Your task to perform on an android device: Show the shopping cart on costco.com. Add "razer nari" to the cart on costco.com, then select checkout. Image 0: 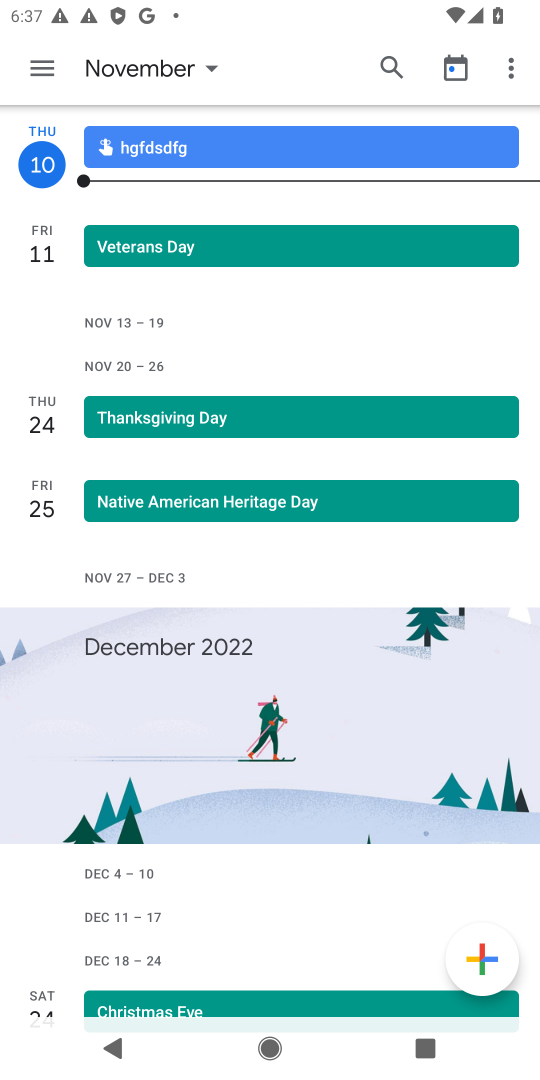
Step 0: press home button
Your task to perform on an android device: Show the shopping cart on costco.com. Add "razer nari" to the cart on costco.com, then select checkout. Image 1: 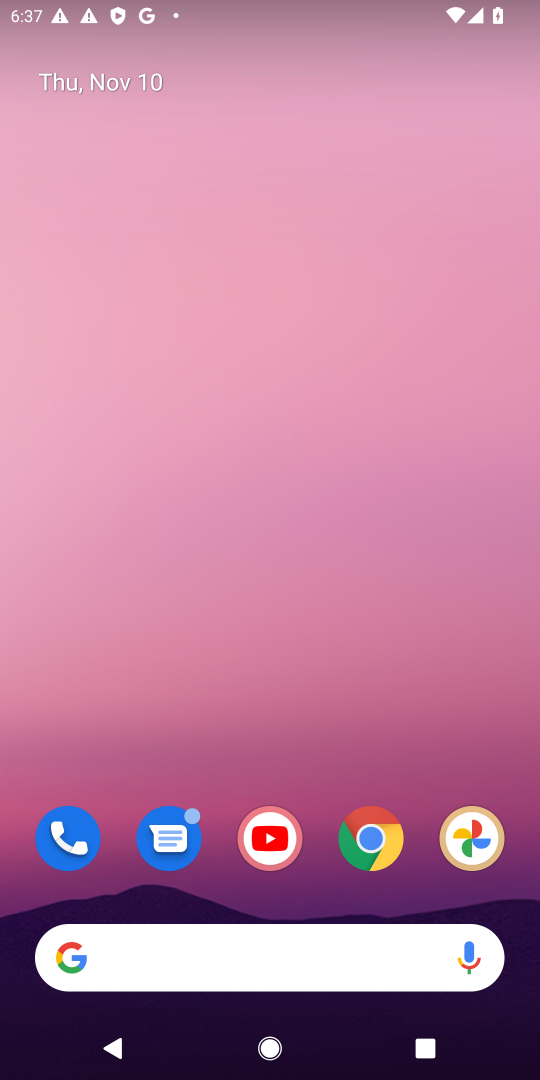
Step 1: drag from (319, 917) to (299, 50)
Your task to perform on an android device: Show the shopping cart on costco.com. Add "razer nari" to the cart on costco.com, then select checkout. Image 2: 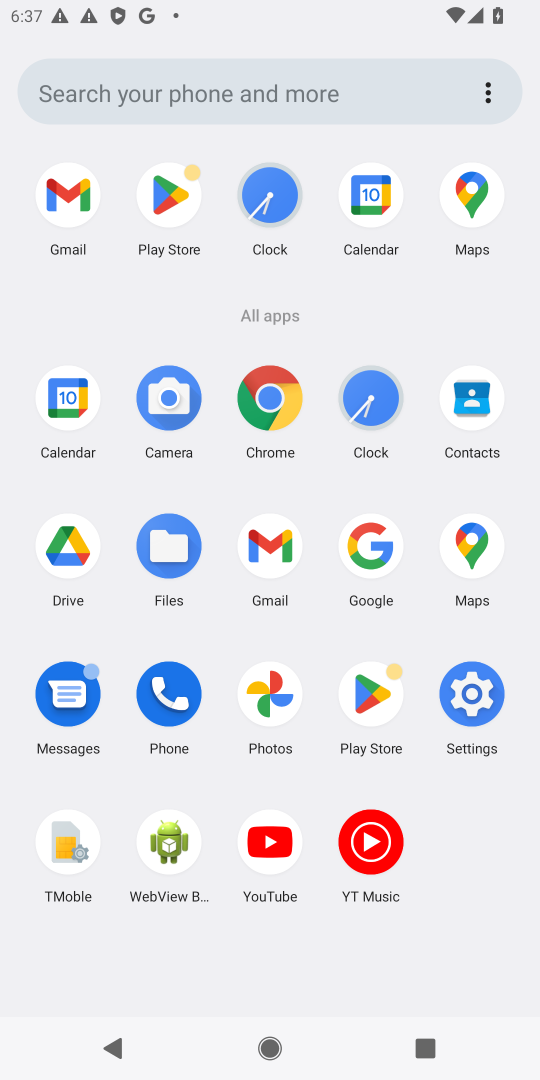
Step 2: click (266, 402)
Your task to perform on an android device: Show the shopping cart on costco.com. Add "razer nari" to the cart on costco.com, then select checkout. Image 3: 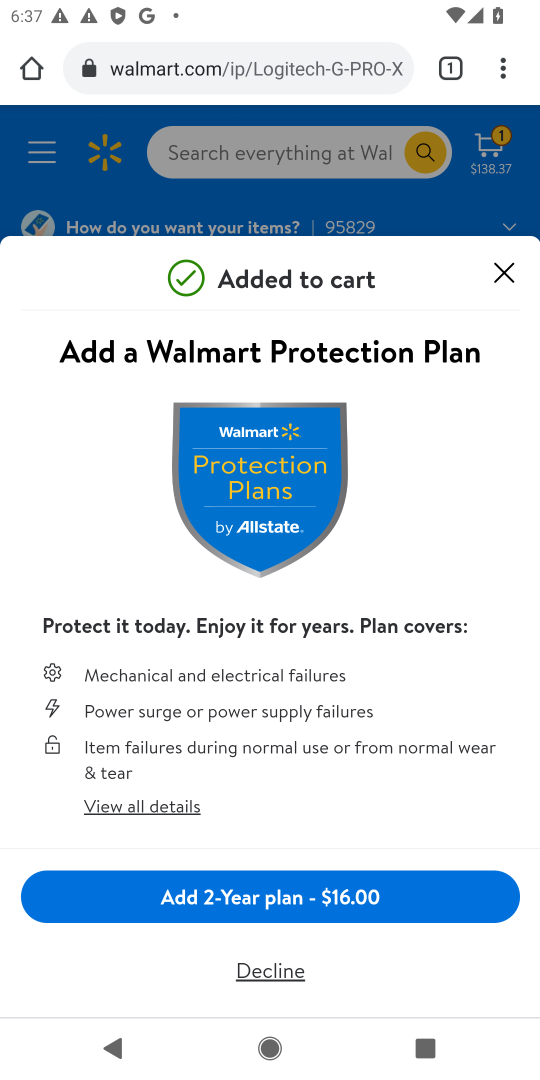
Step 3: click (311, 78)
Your task to perform on an android device: Show the shopping cart on costco.com. Add "razer nari" to the cart on costco.com, then select checkout. Image 4: 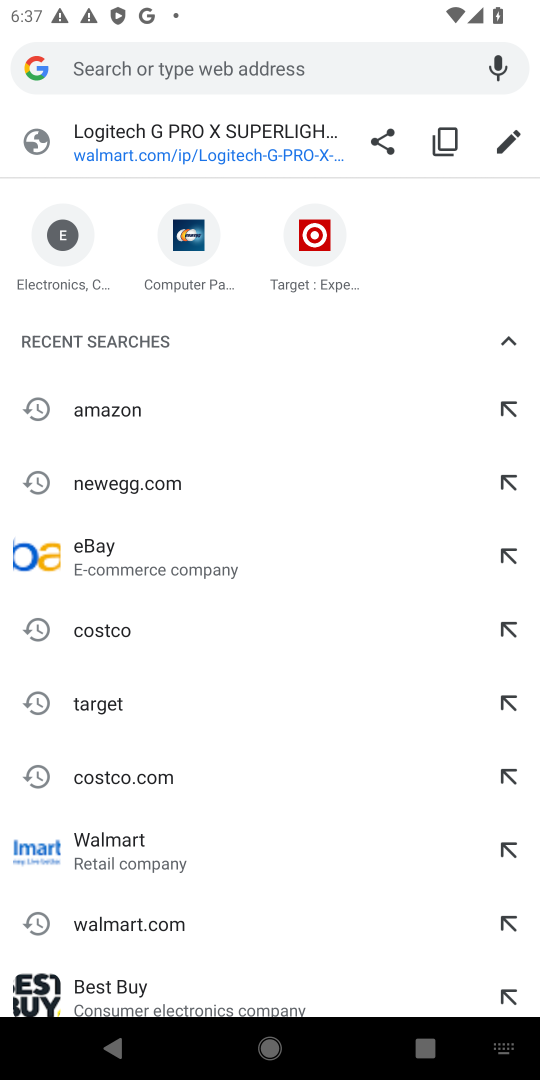
Step 4: type "costco.com"
Your task to perform on an android device: Show the shopping cart on costco.com. Add "razer nari" to the cart on costco.com, then select checkout. Image 5: 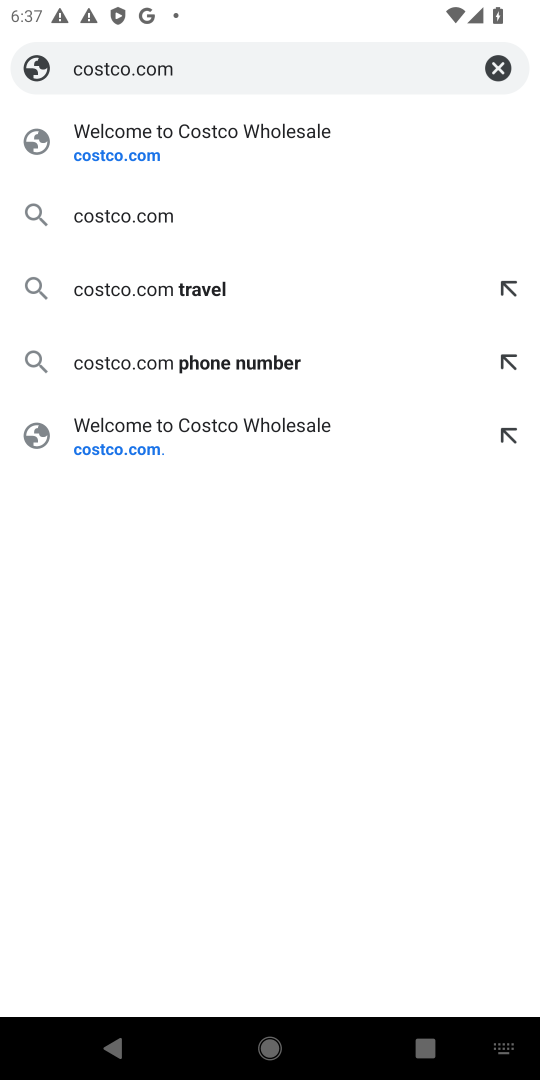
Step 5: press enter
Your task to perform on an android device: Show the shopping cart on costco.com. Add "razer nari" to the cart on costco.com, then select checkout. Image 6: 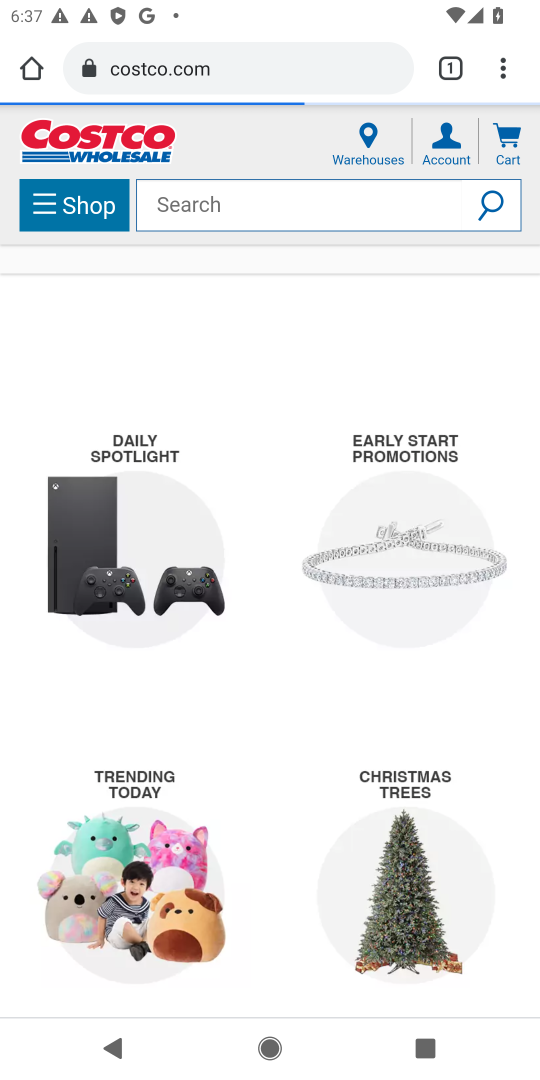
Step 6: click (336, 209)
Your task to perform on an android device: Show the shopping cart on costco.com. Add "razer nari" to the cart on costco.com, then select checkout. Image 7: 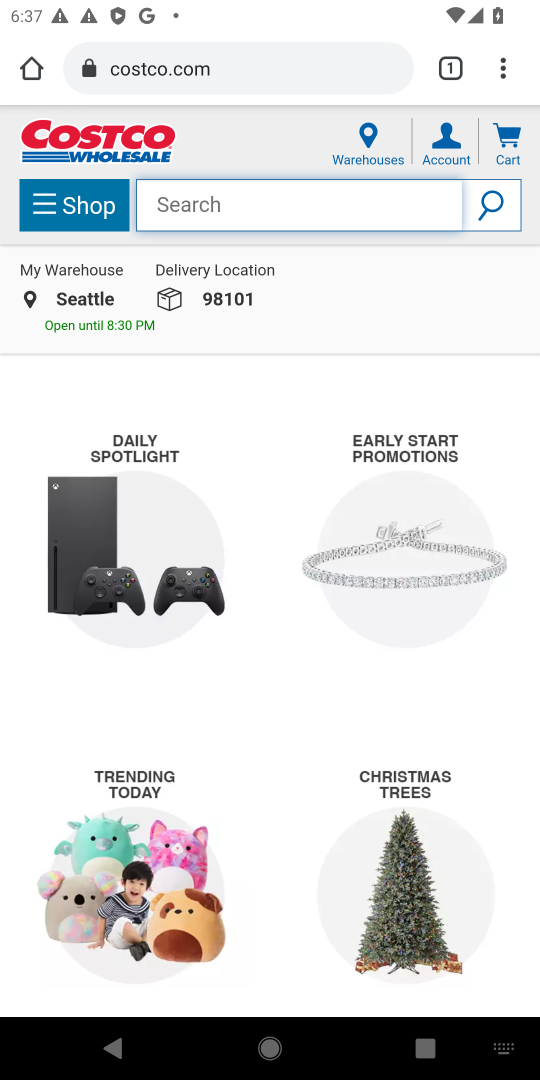
Step 7: type "razer nari"
Your task to perform on an android device: Show the shopping cart on costco.com. Add "razer nari" to the cart on costco.com, then select checkout. Image 8: 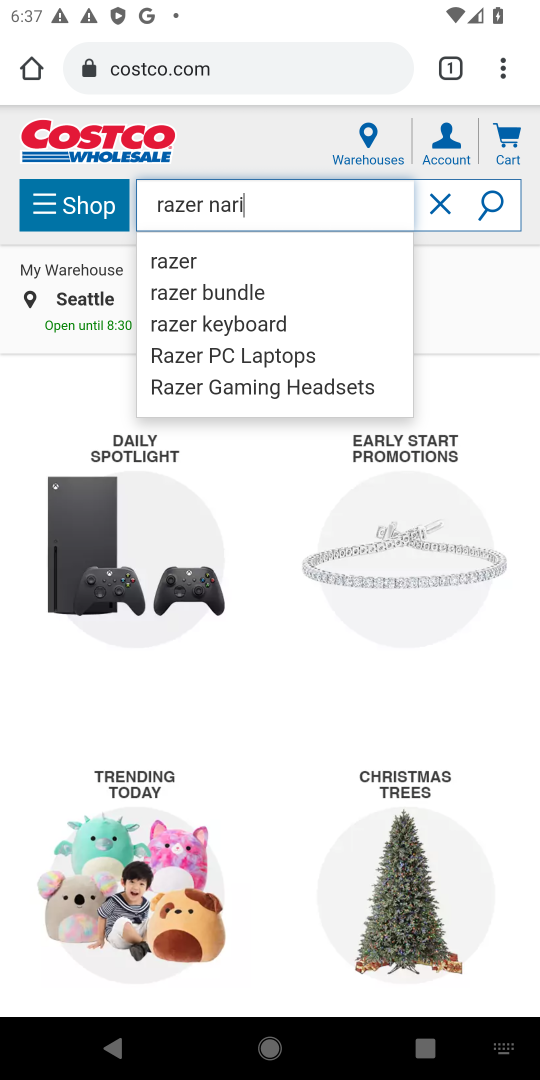
Step 8: press enter
Your task to perform on an android device: Show the shopping cart on costco.com. Add "razer nari" to the cart on costco.com, then select checkout. Image 9: 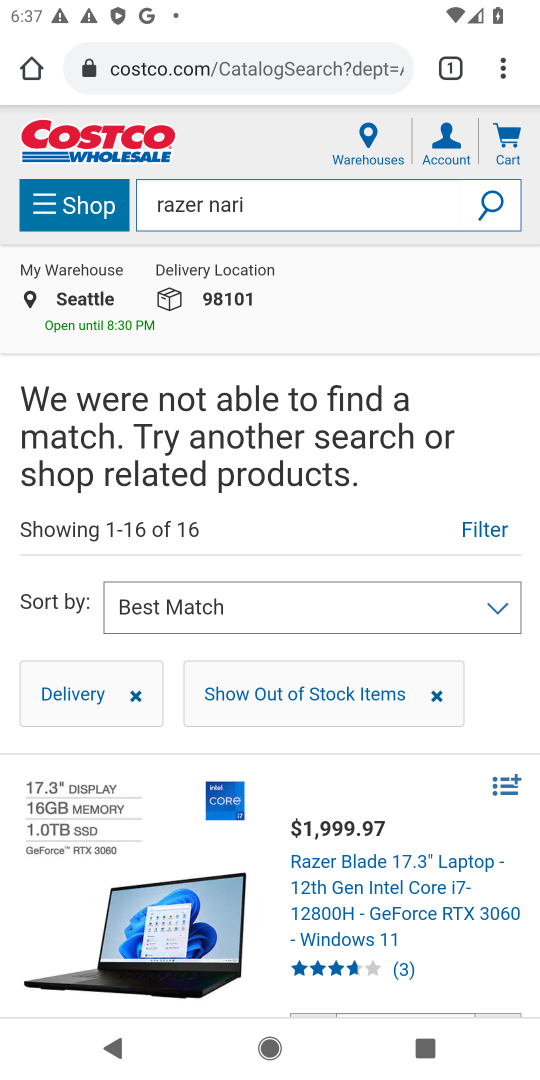
Step 9: drag from (282, 910) to (318, 282)
Your task to perform on an android device: Show the shopping cart on costco.com. Add "razer nari" to the cart on costco.com, then select checkout. Image 10: 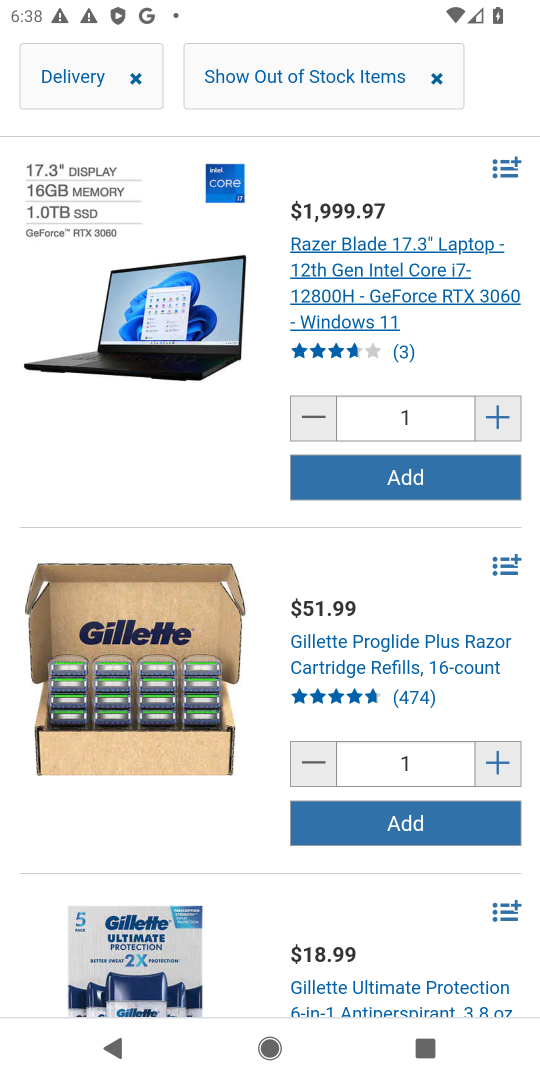
Step 10: drag from (196, 853) to (210, 417)
Your task to perform on an android device: Show the shopping cart on costco.com. Add "razer nari" to the cart on costco.com, then select checkout. Image 11: 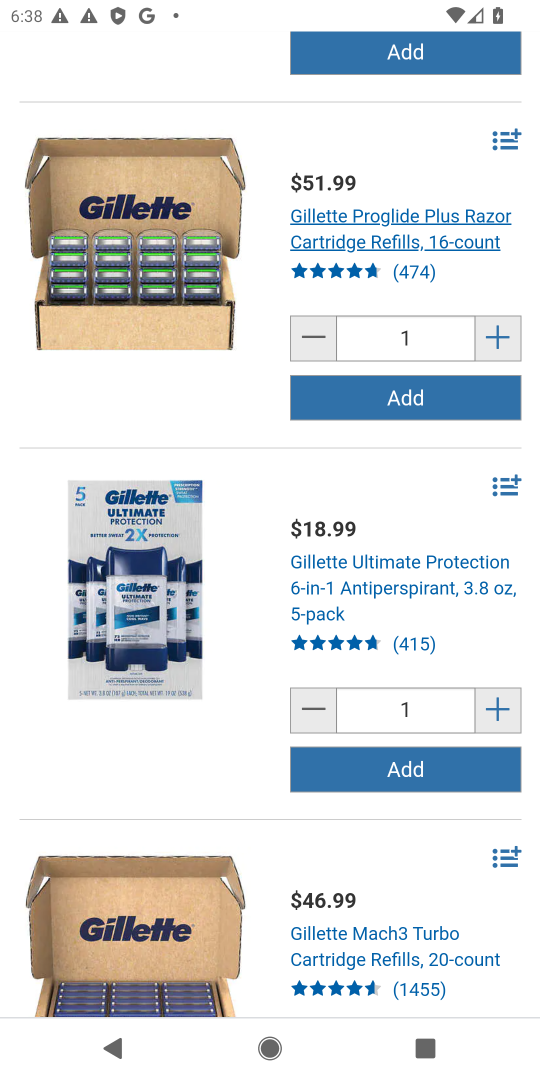
Step 11: drag from (151, 316) to (167, 1027)
Your task to perform on an android device: Show the shopping cart on costco.com. Add "razer nari" to the cart on costco.com, then select checkout. Image 12: 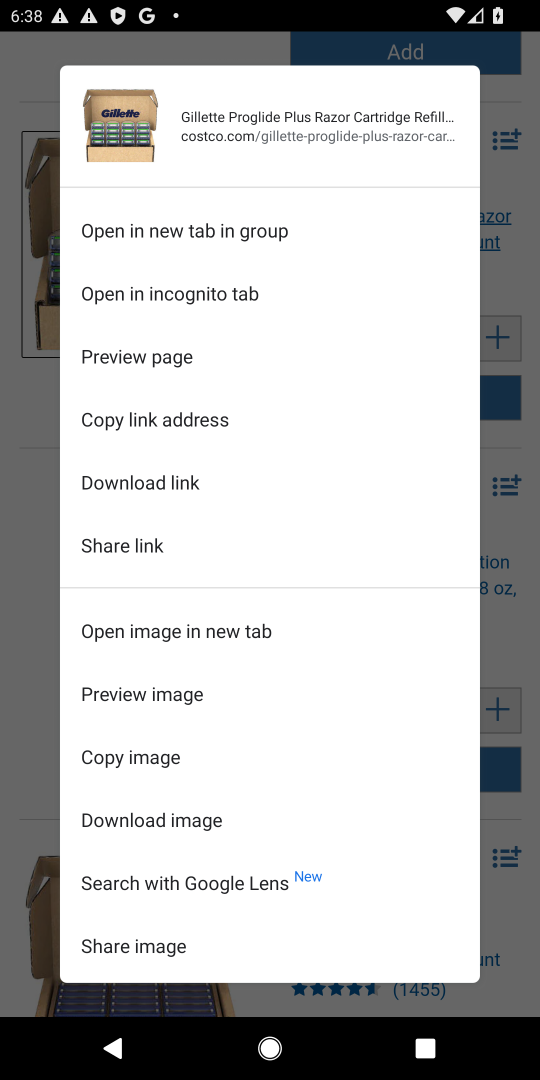
Step 12: click (512, 139)
Your task to perform on an android device: Show the shopping cart on costco.com. Add "razer nari" to the cart on costco.com, then select checkout. Image 13: 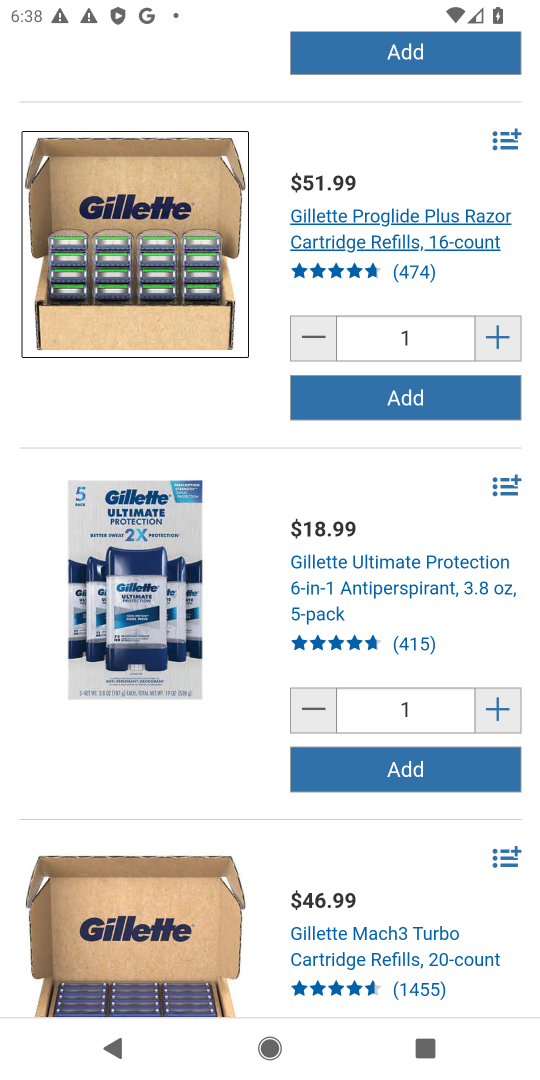
Step 13: task complete